Your task to perform on an android device: see tabs open on other devices in the chrome app Image 0: 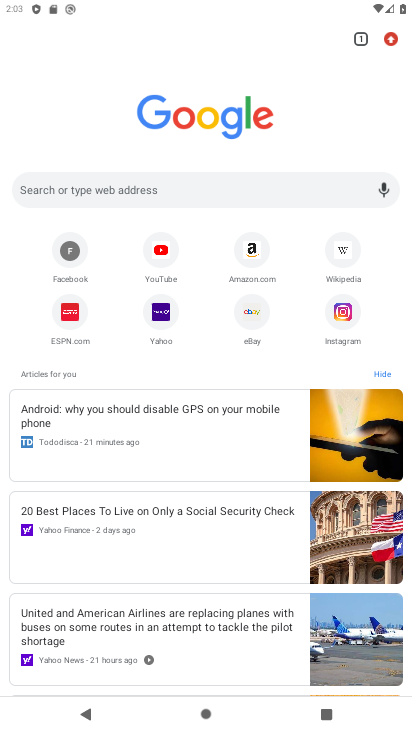
Step 0: press home button
Your task to perform on an android device: see tabs open on other devices in the chrome app Image 1: 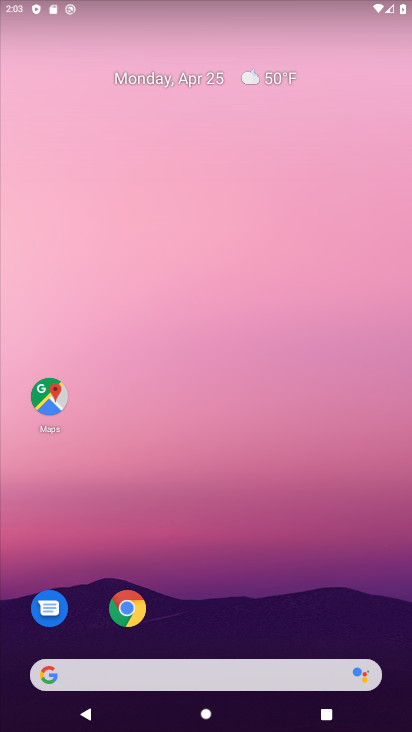
Step 1: click (131, 599)
Your task to perform on an android device: see tabs open on other devices in the chrome app Image 2: 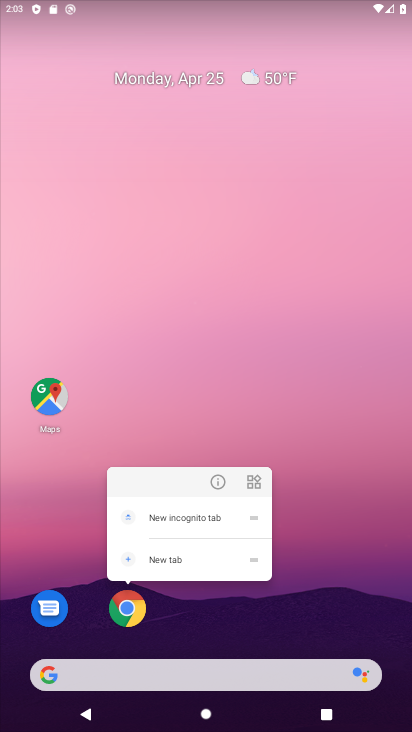
Step 2: click (124, 611)
Your task to perform on an android device: see tabs open on other devices in the chrome app Image 3: 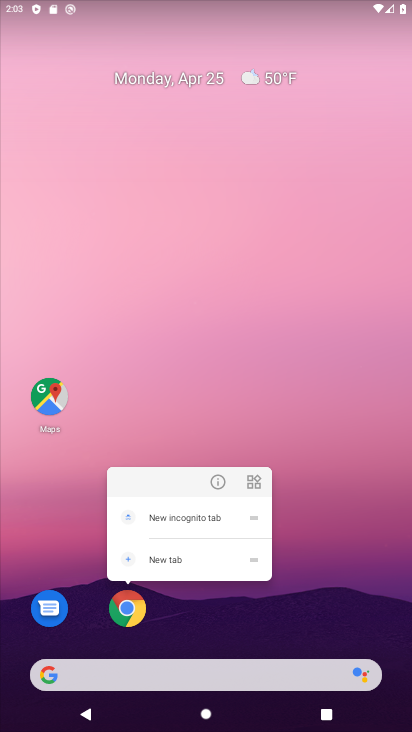
Step 3: click (125, 611)
Your task to perform on an android device: see tabs open on other devices in the chrome app Image 4: 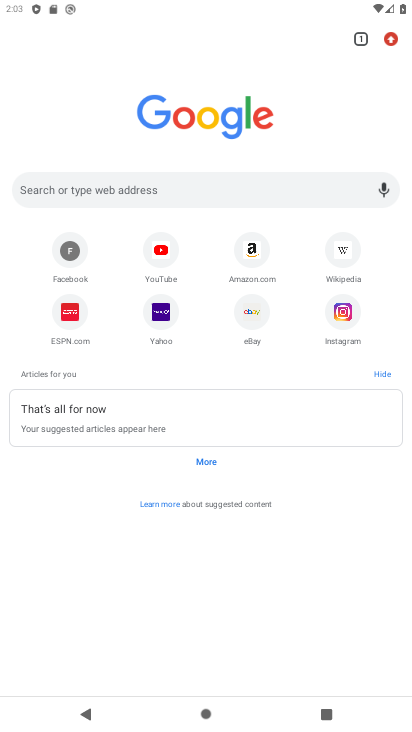
Step 4: task complete